Your task to perform on an android device: Open sound settings Image 0: 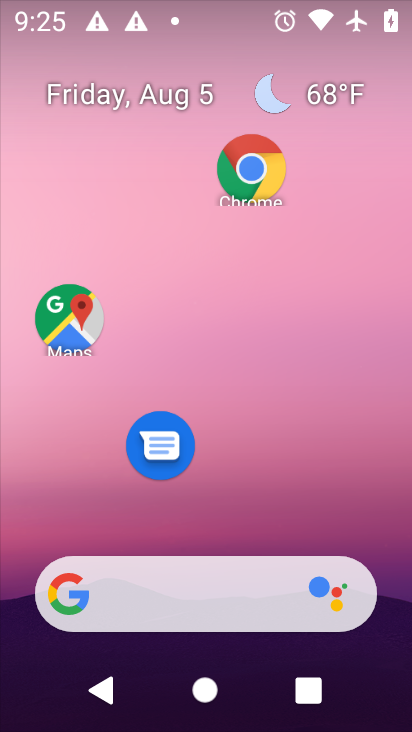
Step 0: drag from (225, 523) to (172, 91)
Your task to perform on an android device: Open sound settings Image 1: 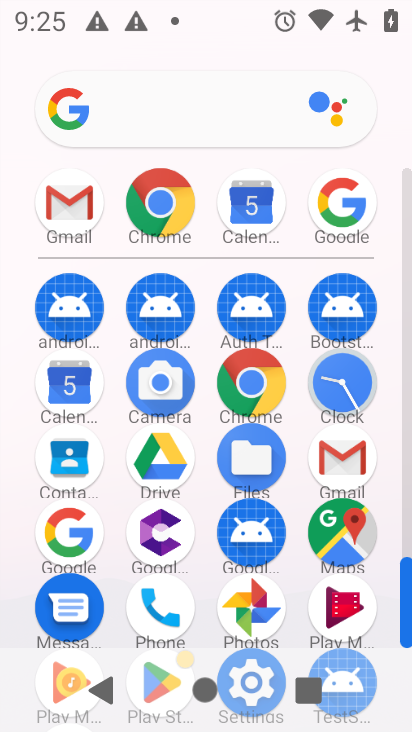
Step 1: drag from (182, 491) to (196, 148)
Your task to perform on an android device: Open sound settings Image 2: 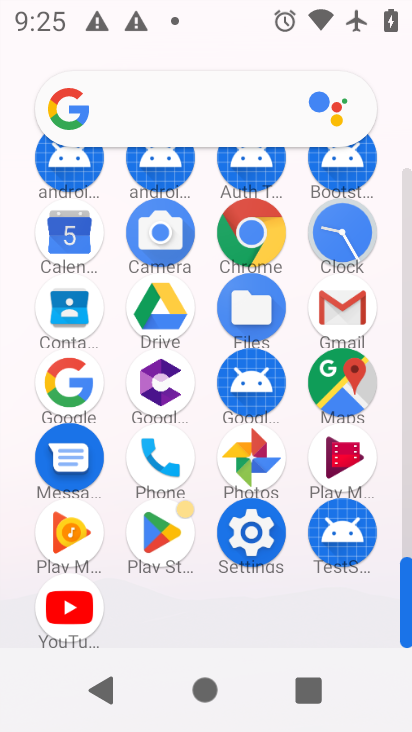
Step 2: click (252, 544)
Your task to perform on an android device: Open sound settings Image 3: 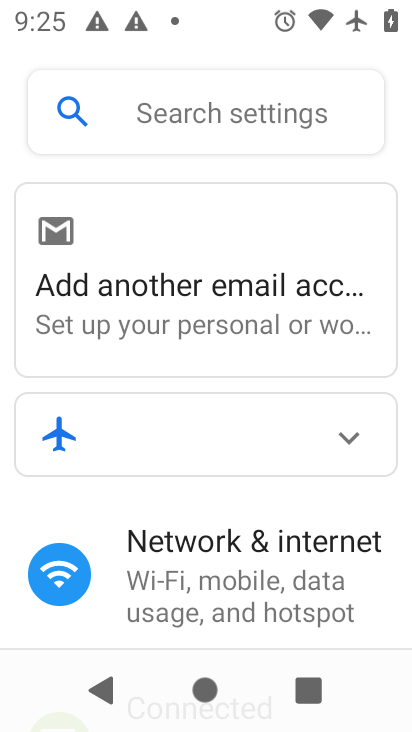
Step 3: drag from (286, 562) to (286, 218)
Your task to perform on an android device: Open sound settings Image 4: 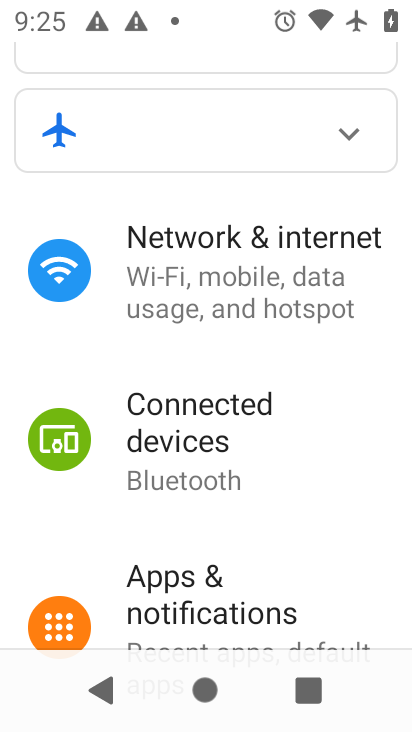
Step 4: drag from (248, 608) to (230, 269)
Your task to perform on an android device: Open sound settings Image 5: 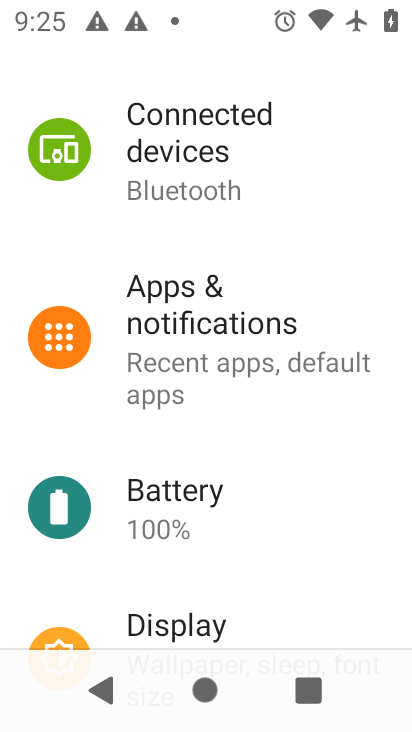
Step 5: drag from (213, 586) to (220, 214)
Your task to perform on an android device: Open sound settings Image 6: 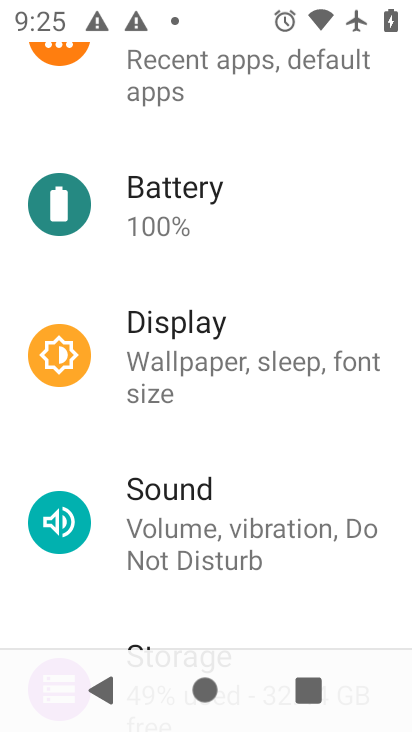
Step 6: click (183, 509)
Your task to perform on an android device: Open sound settings Image 7: 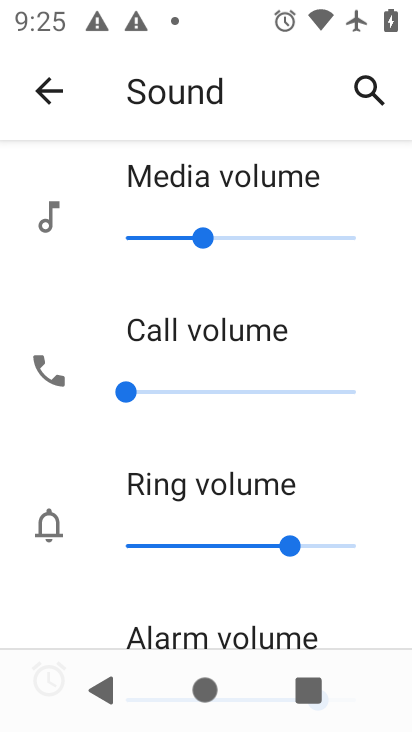
Step 7: task complete